Your task to perform on an android device: Go to Google Image 0: 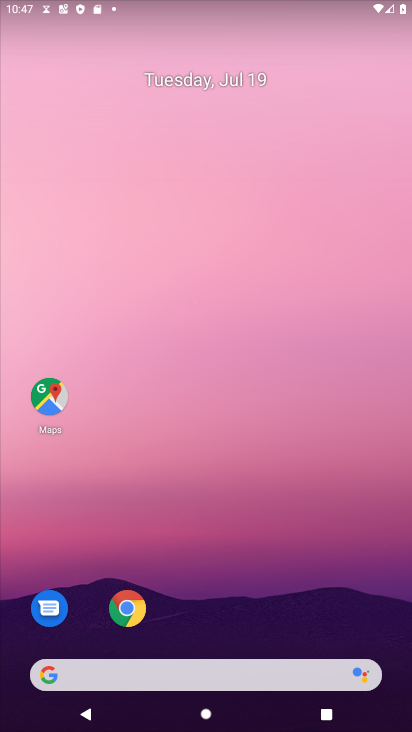
Step 0: drag from (201, 582) to (253, 115)
Your task to perform on an android device: Go to Google Image 1: 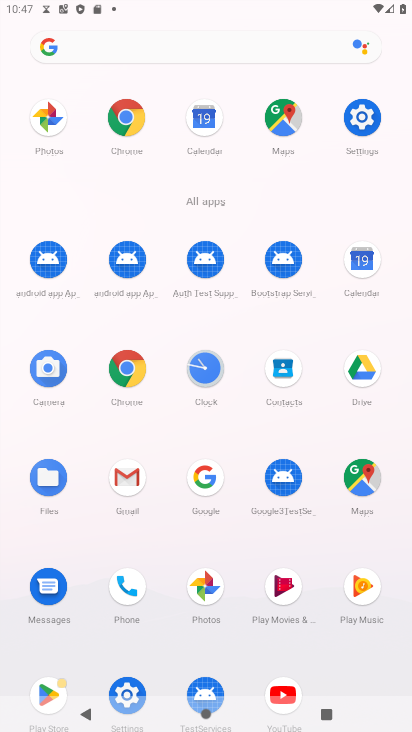
Step 1: click (208, 487)
Your task to perform on an android device: Go to Google Image 2: 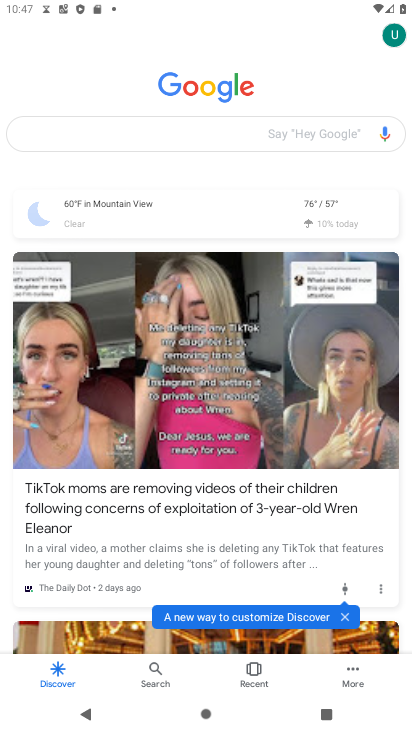
Step 2: task complete